Your task to perform on an android device: What's the weather going to be this weekend? Image 0: 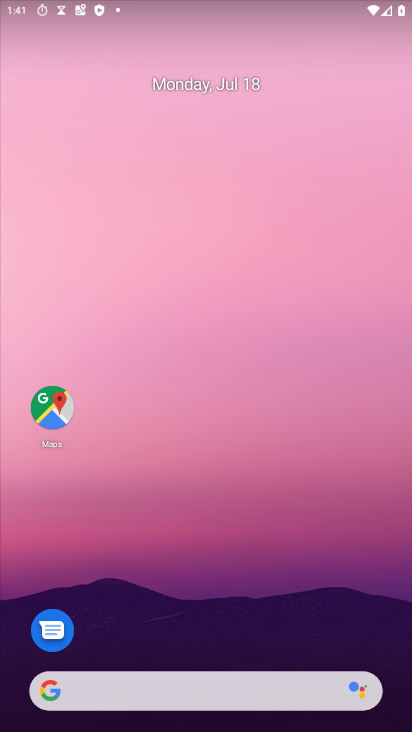
Step 0: drag from (289, 654) to (301, 15)
Your task to perform on an android device: What's the weather going to be this weekend? Image 1: 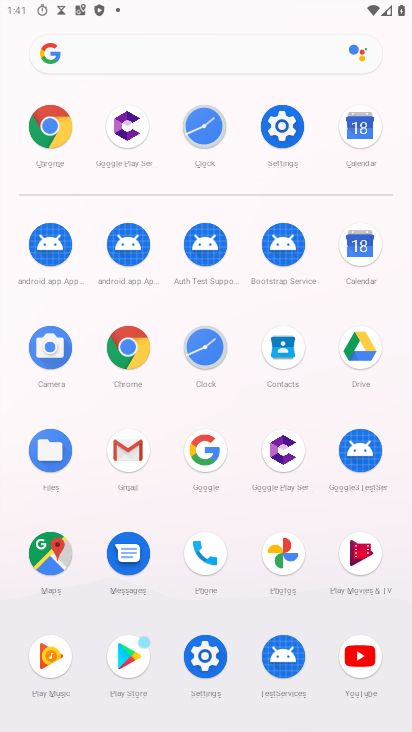
Step 1: click (123, 336)
Your task to perform on an android device: What's the weather going to be this weekend? Image 2: 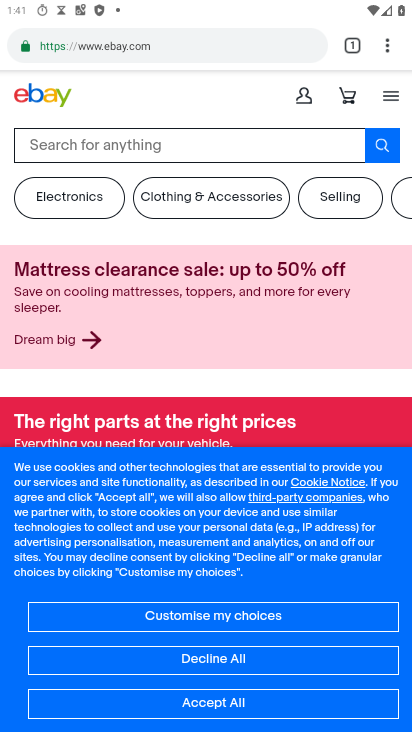
Step 2: click (137, 40)
Your task to perform on an android device: What's the weather going to be this weekend? Image 3: 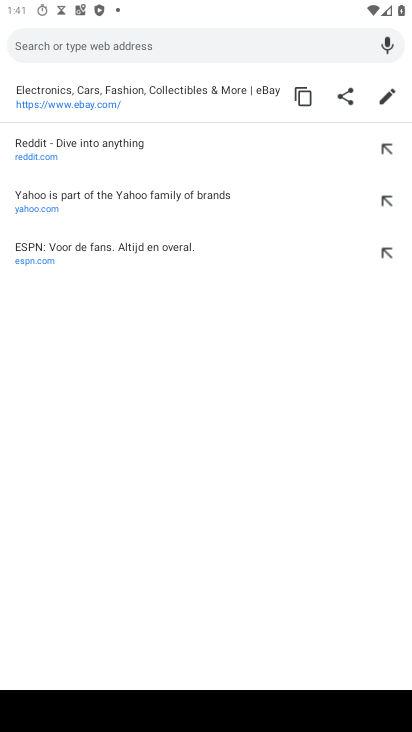
Step 3: type "weather going to be this weekend"
Your task to perform on an android device: What's the weather going to be this weekend? Image 4: 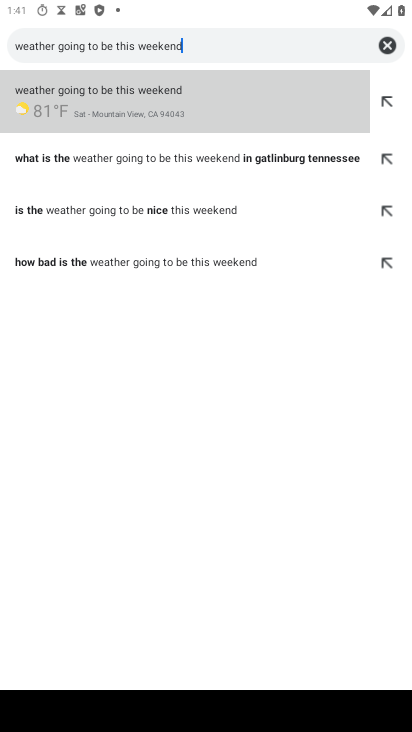
Step 4: click (139, 114)
Your task to perform on an android device: What's the weather going to be this weekend? Image 5: 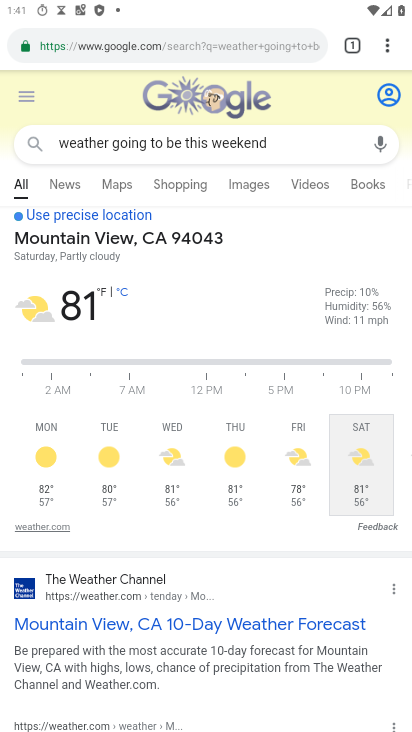
Step 5: task complete